Your task to perform on an android device: Search for sushi restaurants on Maps Image 0: 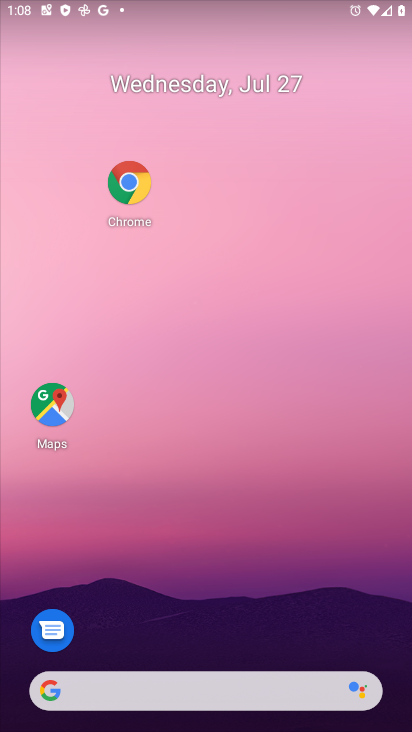
Step 0: click (45, 404)
Your task to perform on an android device: Search for sushi restaurants on Maps Image 1: 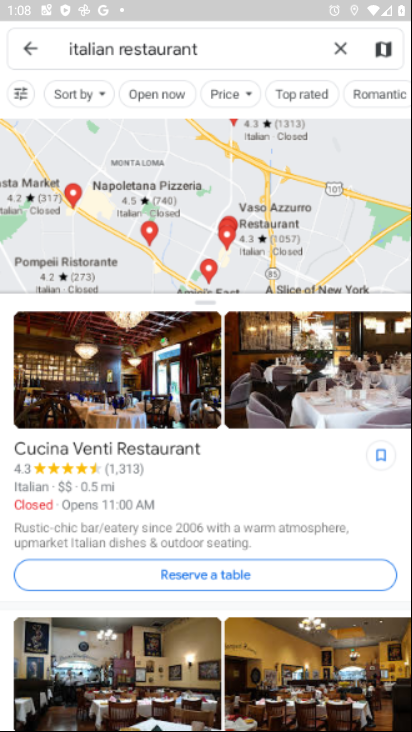
Step 1: click (335, 46)
Your task to perform on an android device: Search for sushi restaurants on Maps Image 2: 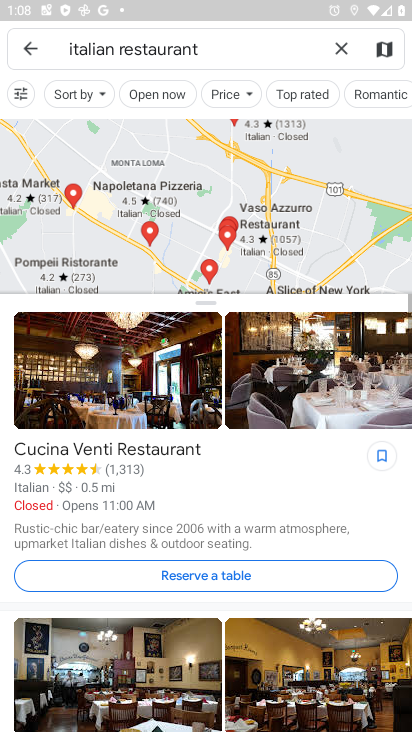
Step 2: click (342, 45)
Your task to perform on an android device: Search for sushi restaurants on Maps Image 3: 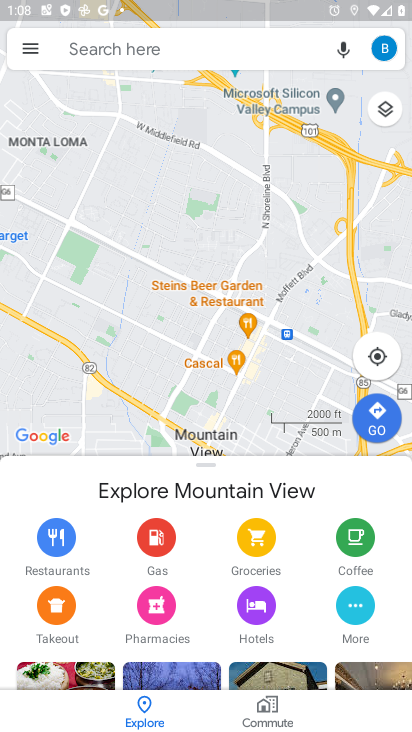
Step 3: click (225, 55)
Your task to perform on an android device: Search for sushi restaurants on Maps Image 4: 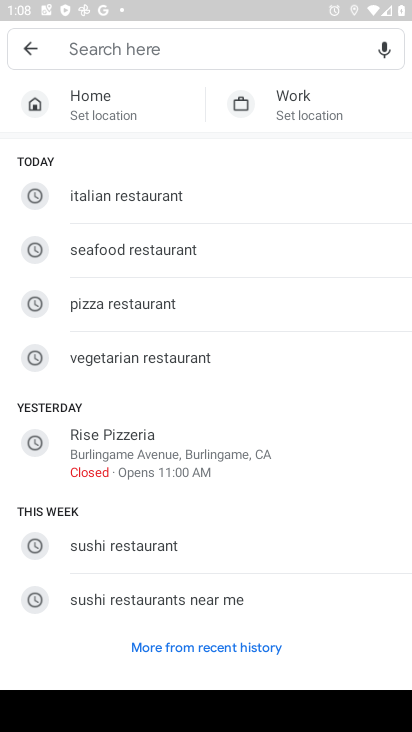
Step 4: click (135, 541)
Your task to perform on an android device: Search for sushi restaurants on Maps Image 5: 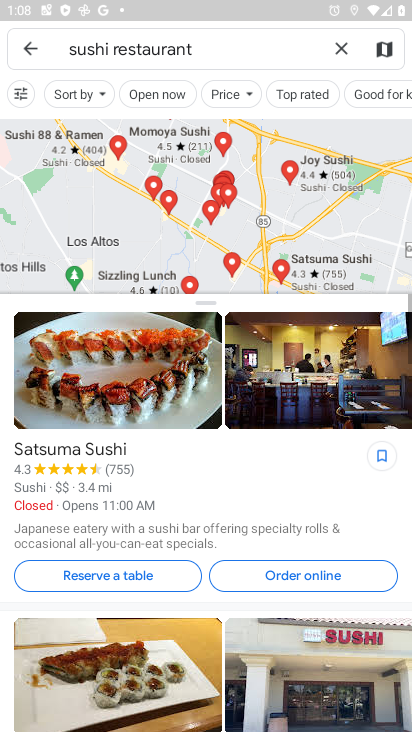
Step 5: task complete